Your task to perform on an android device: open a new tab in the chrome app Image 0: 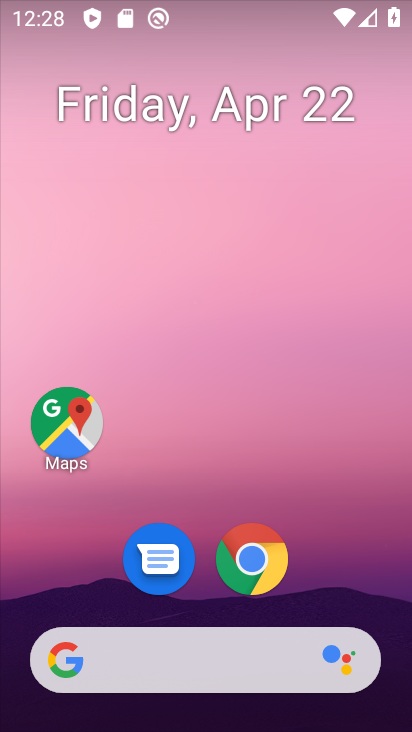
Step 0: drag from (365, 588) to (267, 60)
Your task to perform on an android device: open a new tab in the chrome app Image 1: 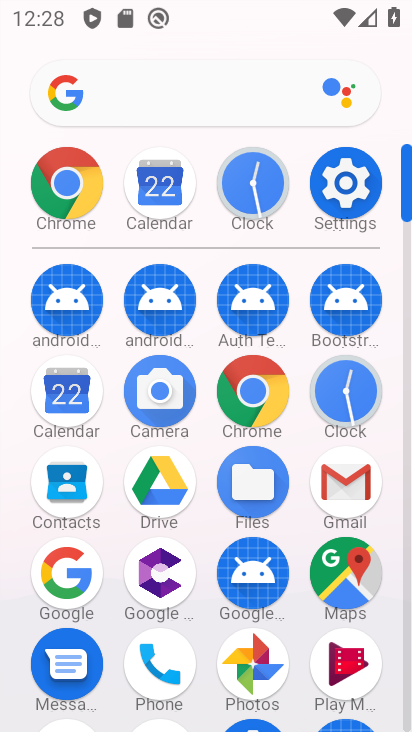
Step 1: click (249, 401)
Your task to perform on an android device: open a new tab in the chrome app Image 2: 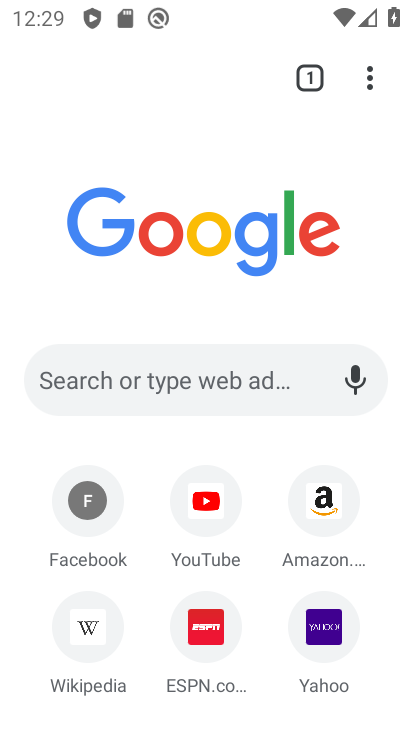
Step 2: click (315, 81)
Your task to perform on an android device: open a new tab in the chrome app Image 3: 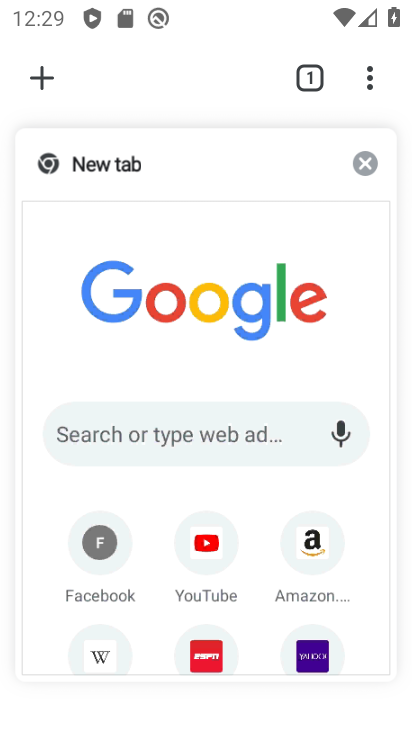
Step 3: click (40, 70)
Your task to perform on an android device: open a new tab in the chrome app Image 4: 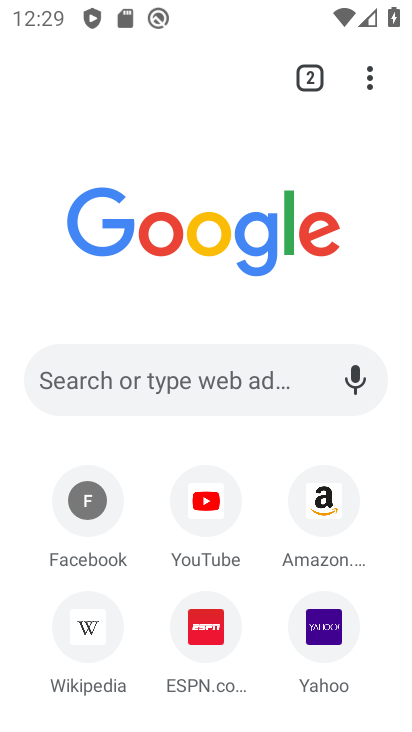
Step 4: task complete